Your task to perform on an android device: Go to Wikipedia Image 0: 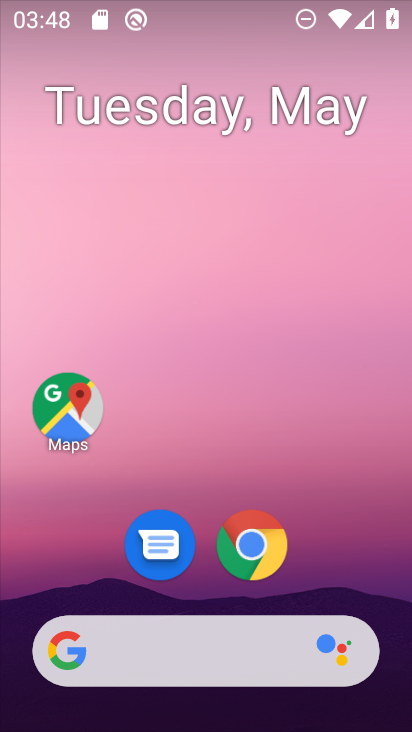
Step 0: click (251, 545)
Your task to perform on an android device: Go to Wikipedia Image 1: 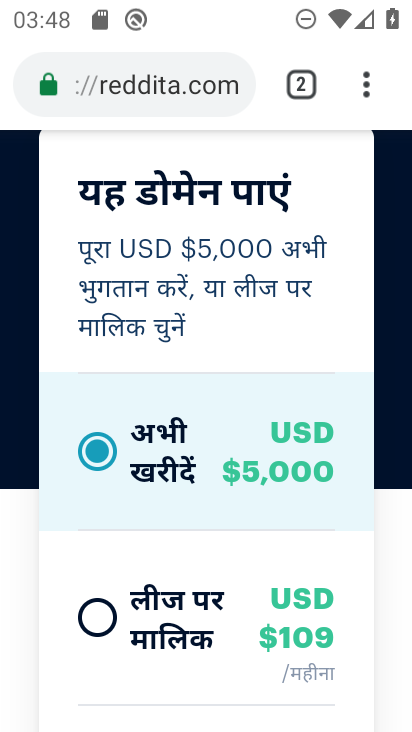
Step 1: click (167, 78)
Your task to perform on an android device: Go to Wikipedia Image 2: 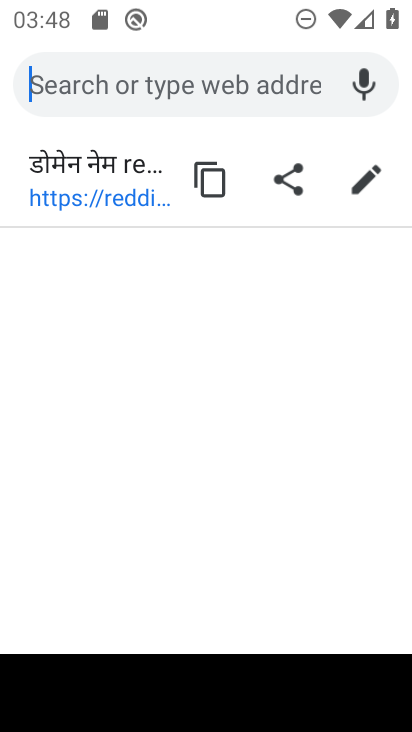
Step 2: type "wikipedia"
Your task to perform on an android device: Go to Wikipedia Image 3: 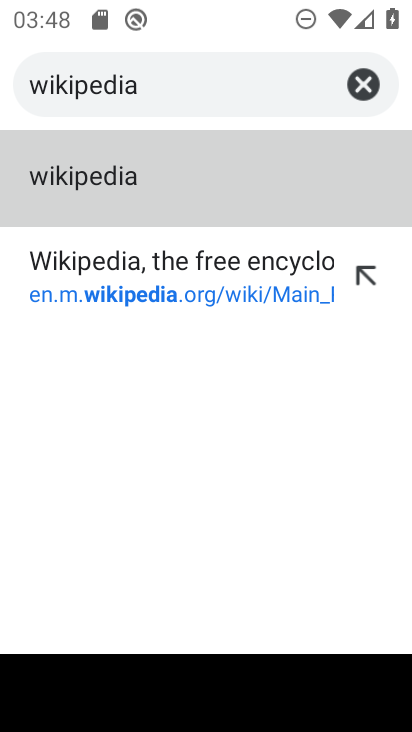
Step 3: click (93, 184)
Your task to perform on an android device: Go to Wikipedia Image 4: 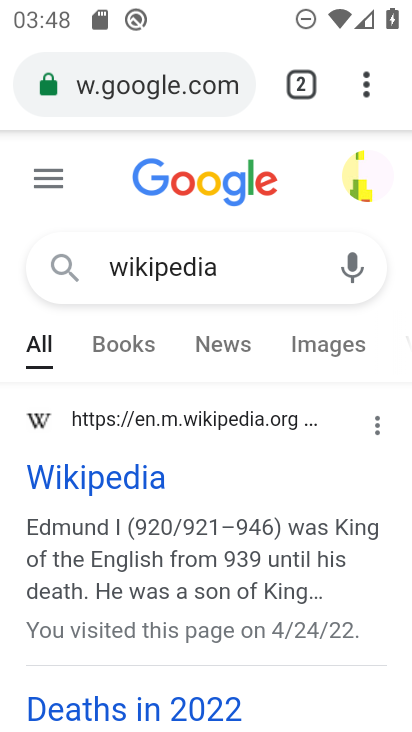
Step 4: click (106, 469)
Your task to perform on an android device: Go to Wikipedia Image 5: 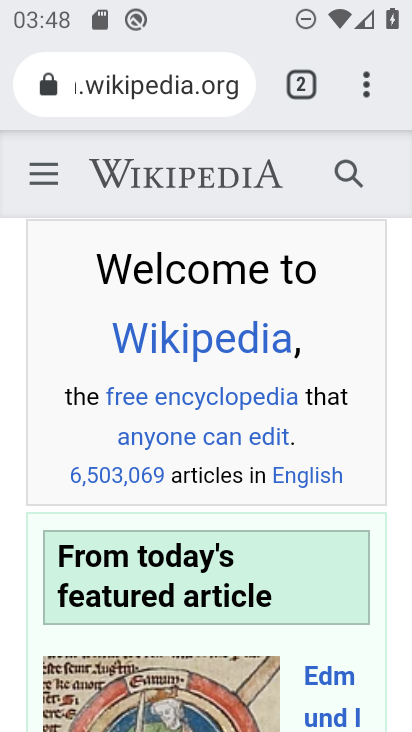
Step 5: task complete